Your task to perform on an android device: Go to Amazon Image 0: 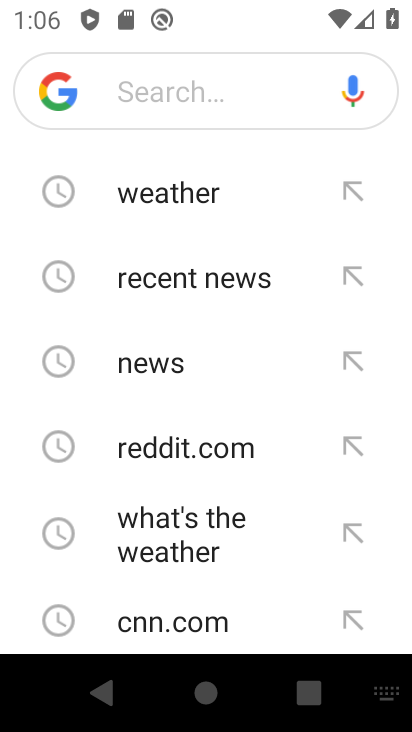
Step 0: press home button
Your task to perform on an android device: Go to Amazon Image 1: 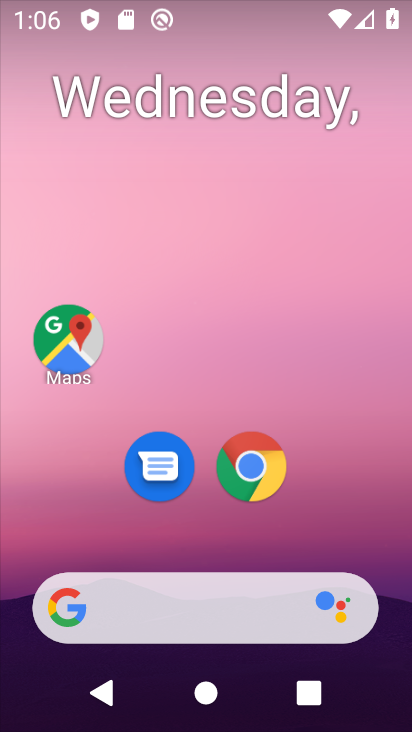
Step 1: click (244, 442)
Your task to perform on an android device: Go to Amazon Image 2: 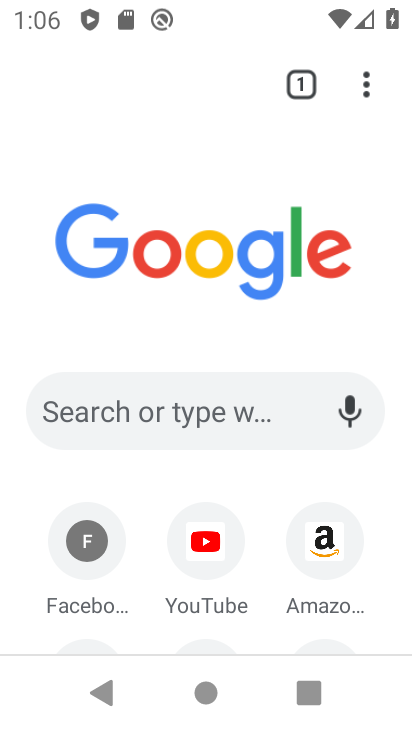
Step 2: click (336, 546)
Your task to perform on an android device: Go to Amazon Image 3: 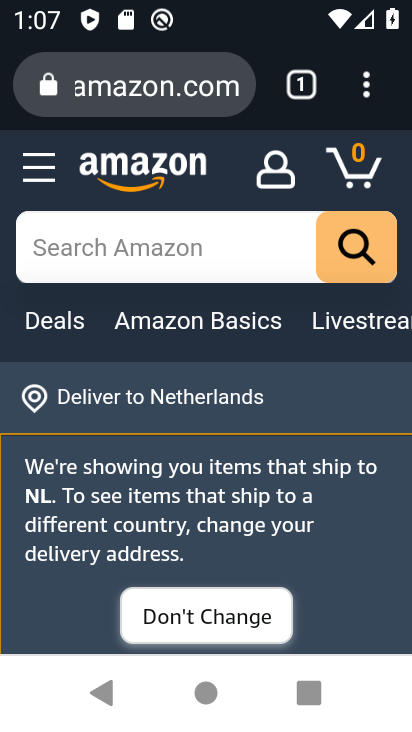
Step 3: task complete